Your task to perform on an android device: Search for the new nike air max 270 on Nike.com Image 0: 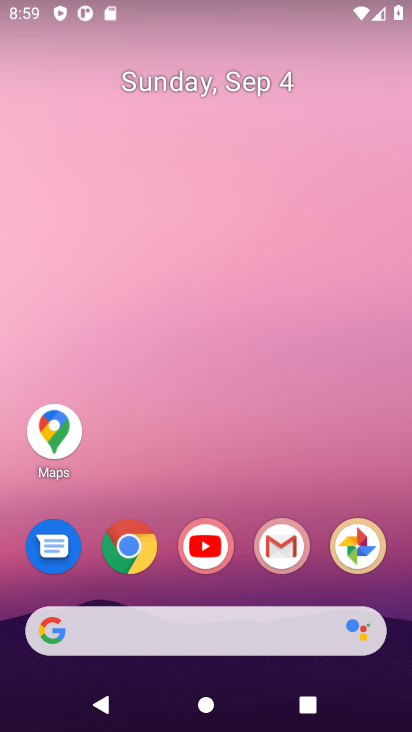
Step 0: click (123, 555)
Your task to perform on an android device: Search for the new nike air max 270 on Nike.com Image 1: 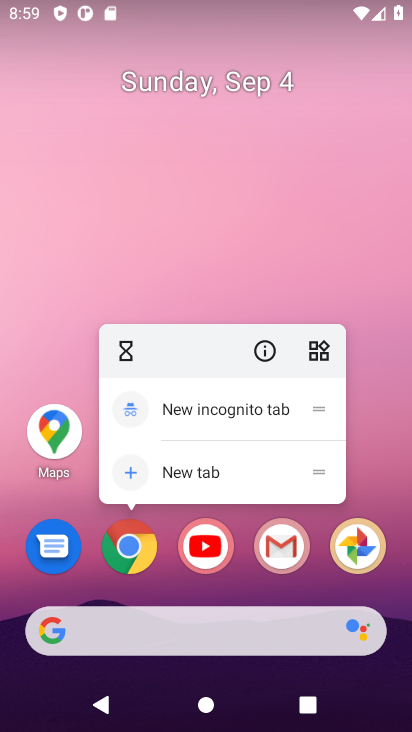
Step 1: click (130, 549)
Your task to perform on an android device: Search for the new nike air max 270 on Nike.com Image 2: 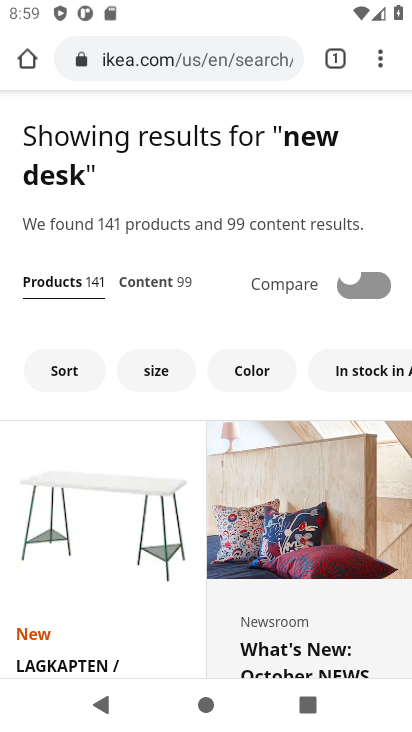
Step 2: click (238, 65)
Your task to perform on an android device: Search for the new nike air max 270 on Nike.com Image 3: 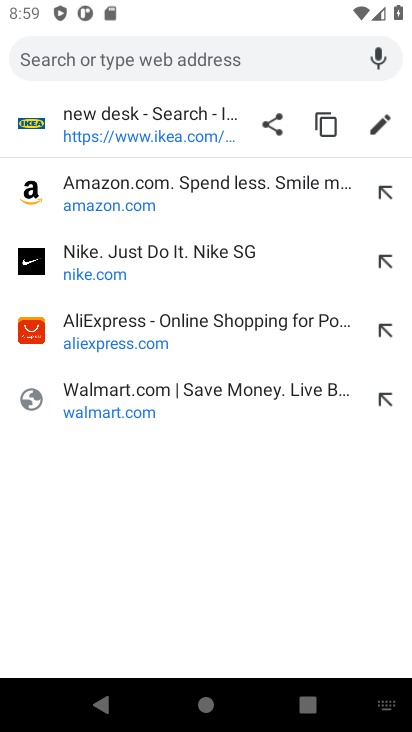
Step 3: click (81, 279)
Your task to perform on an android device: Search for the new nike air max 270 on Nike.com Image 4: 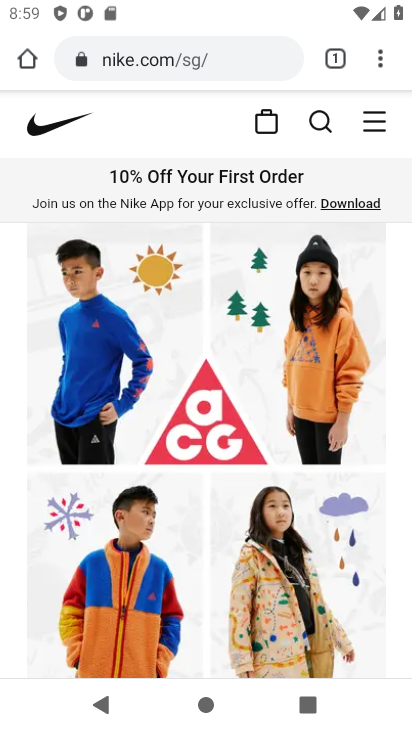
Step 4: click (320, 115)
Your task to perform on an android device: Search for the new nike air max 270 on Nike.com Image 5: 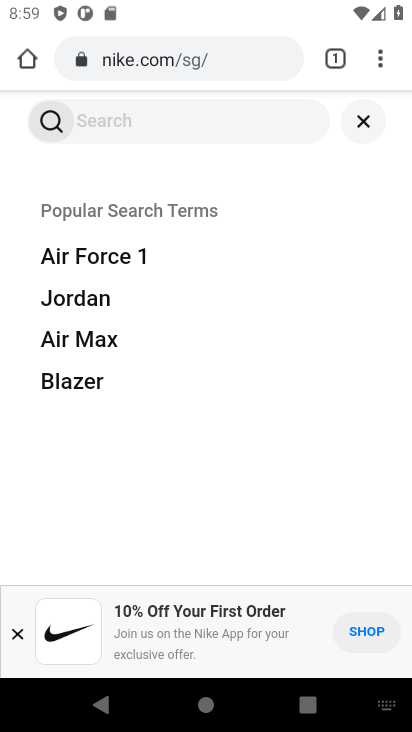
Step 5: type "new nike air max 270"
Your task to perform on an android device: Search for the new nike air max 270 on Nike.com Image 6: 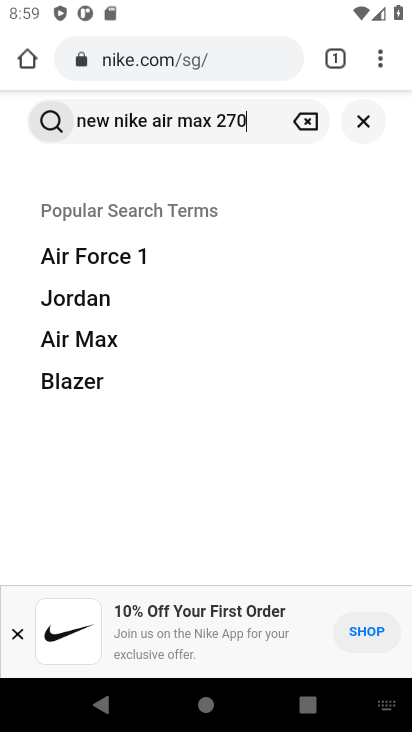
Step 6: click (52, 129)
Your task to perform on an android device: Search for the new nike air max 270 on Nike.com Image 7: 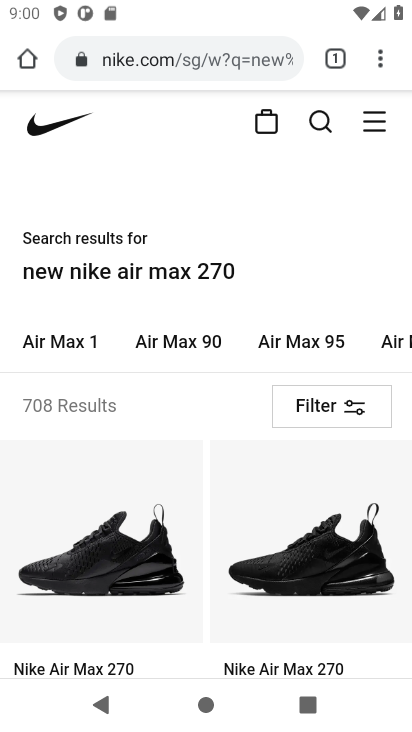
Step 7: task complete